Your task to perform on an android device: add a contact Image 0: 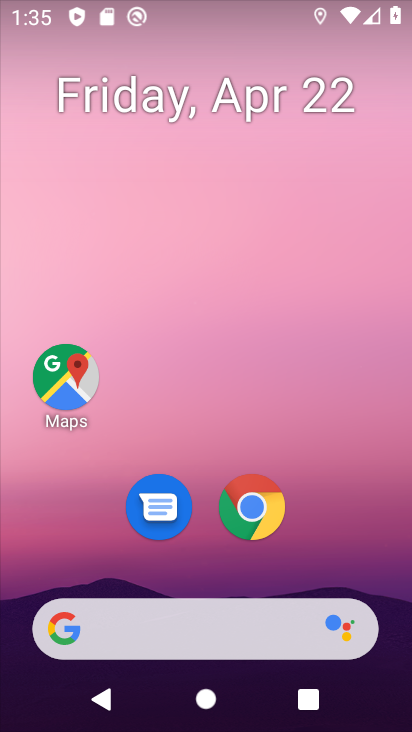
Step 0: drag from (182, 632) to (279, 65)
Your task to perform on an android device: add a contact Image 1: 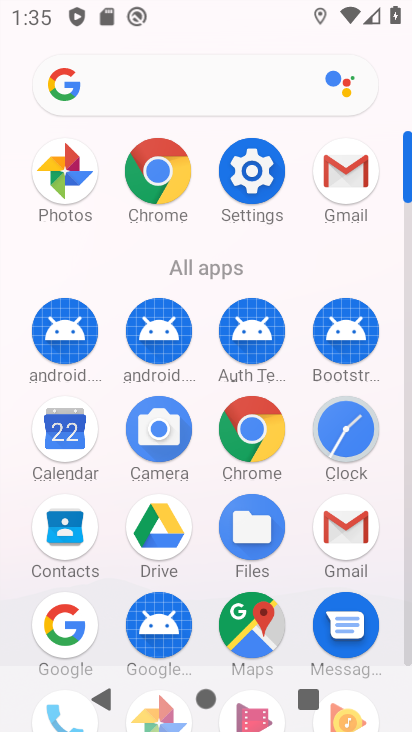
Step 1: click (66, 536)
Your task to perform on an android device: add a contact Image 2: 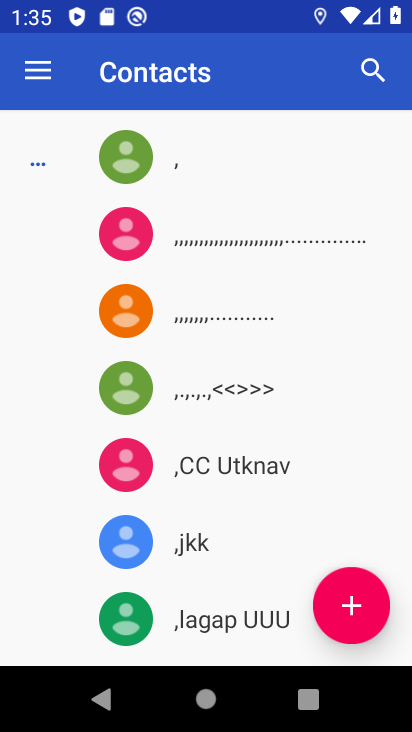
Step 2: click (352, 601)
Your task to perform on an android device: add a contact Image 3: 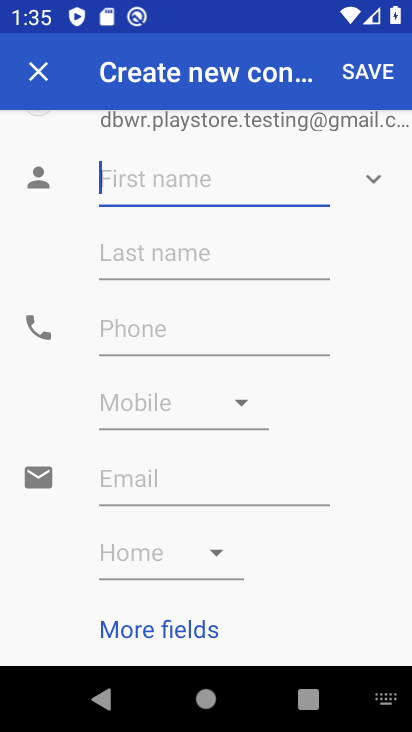
Step 3: click (149, 174)
Your task to perform on an android device: add a contact Image 4: 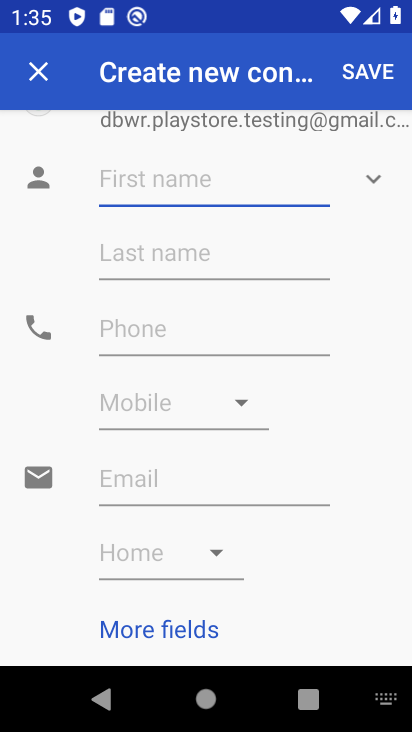
Step 4: type "bndsawer"
Your task to perform on an android device: add a contact Image 5: 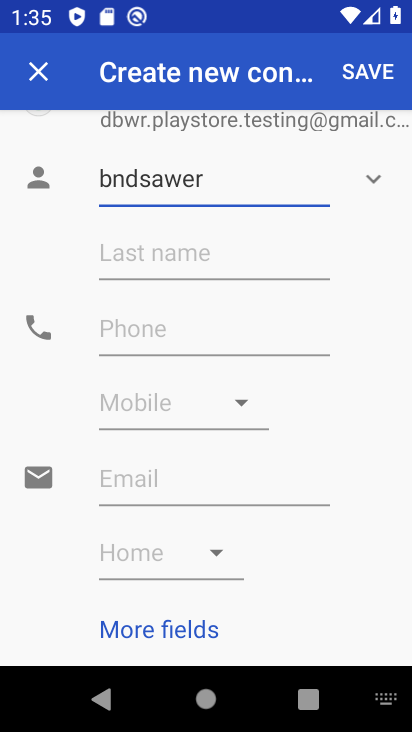
Step 5: click (165, 322)
Your task to perform on an android device: add a contact Image 6: 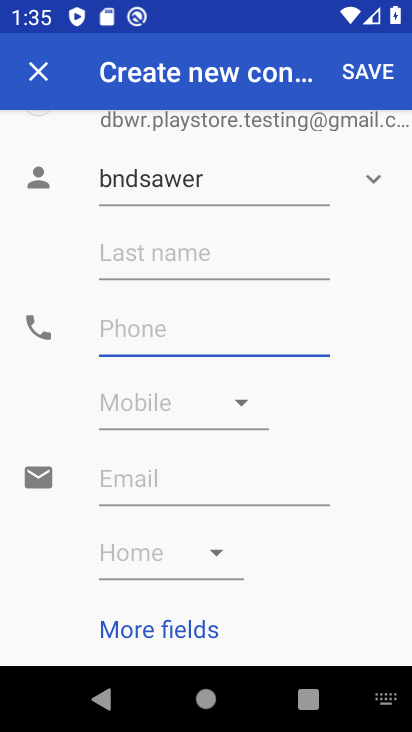
Step 6: click (152, 330)
Your task to perform on an android device: add a contact Image 7: 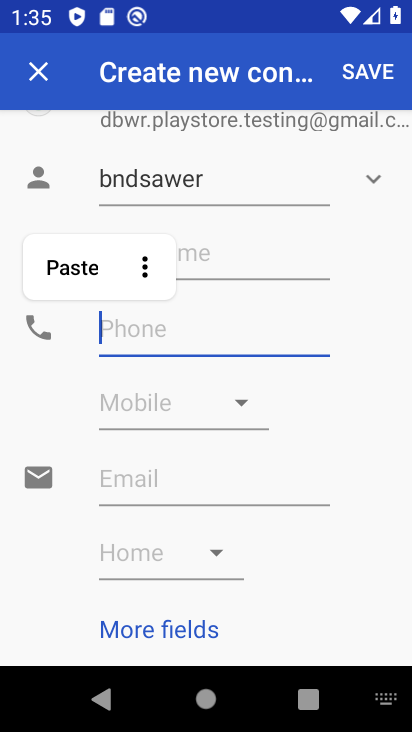
Step 7: type "876865555"
Your task to perform on an android device: add a contact Image 8: 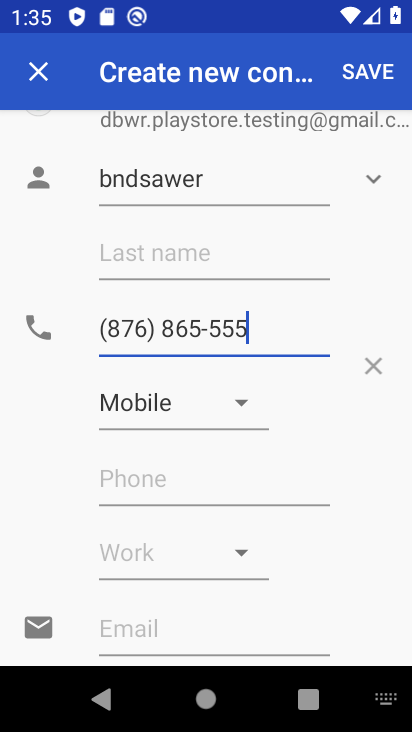
Step 8: click (372, 74)
Your task to perform on an android device: add a contact Image 9: 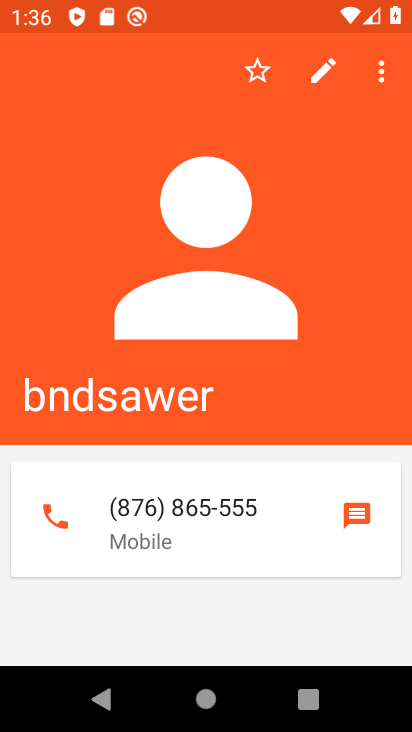
Step 9: task complete